Your task to perform on an android device: Go to eBay Image 0: 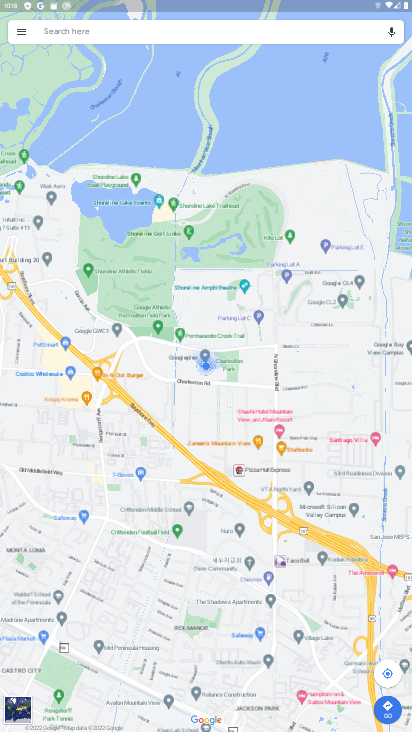
Step 0: press home button
Your task to perform on an android device: Go to eBay Image 1: 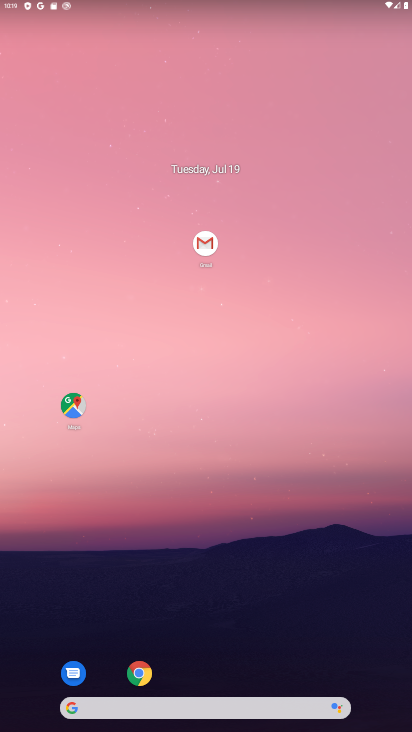
Step 1: click (142, 678)
Your task to perform on an android device: Go to eBay Image 2: 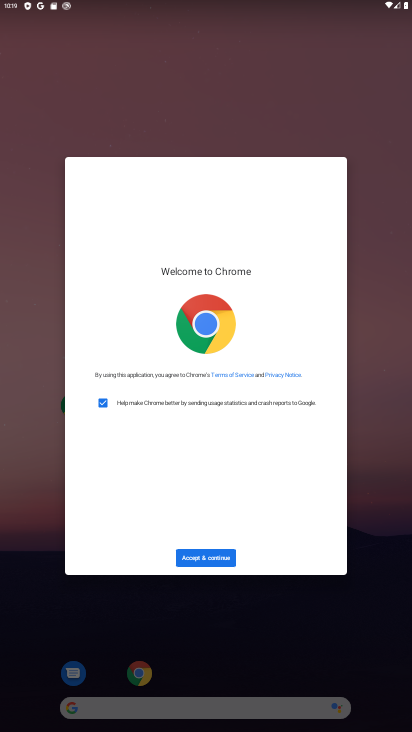
Step 2: click (192, 563)
Your task to perform on an android device: Go to eBay Image 3: 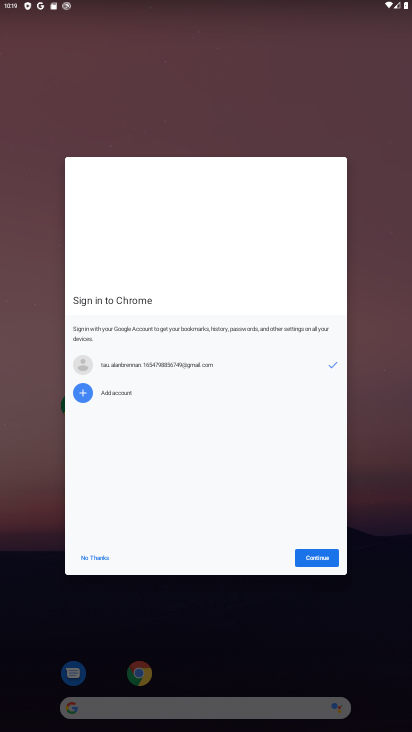
Step 3: click (308, 558)
Your task to perform on an android device: Go to eBay Image 4: 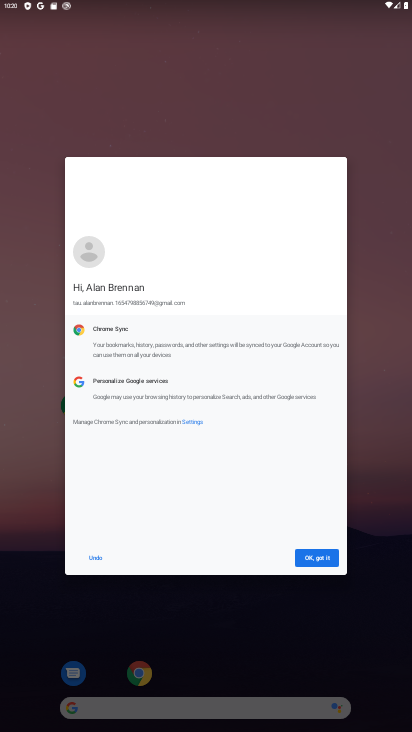
Step 4: click (308, 558)
Your task to perform on an android device: Go to eBay Image 5: 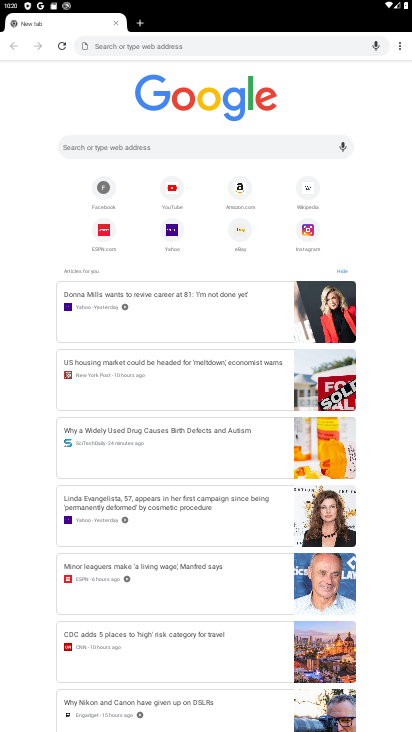
Step 5: click (240, 232)
Your task to perform on an android device: Go to eBay Image 6: 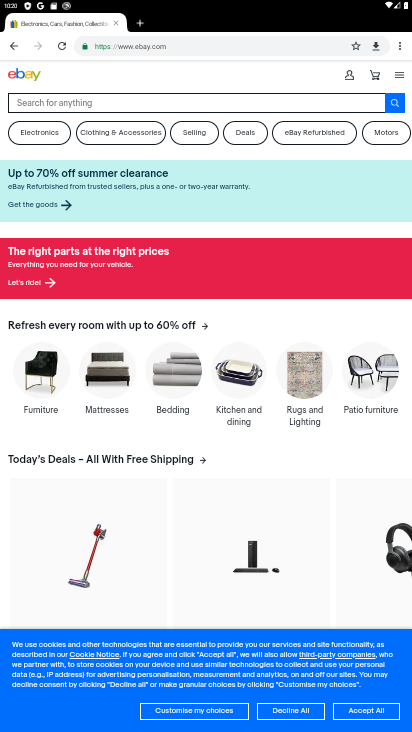
Step 6: task complete